Your task to perform on an android device: Open network settings Image 0: 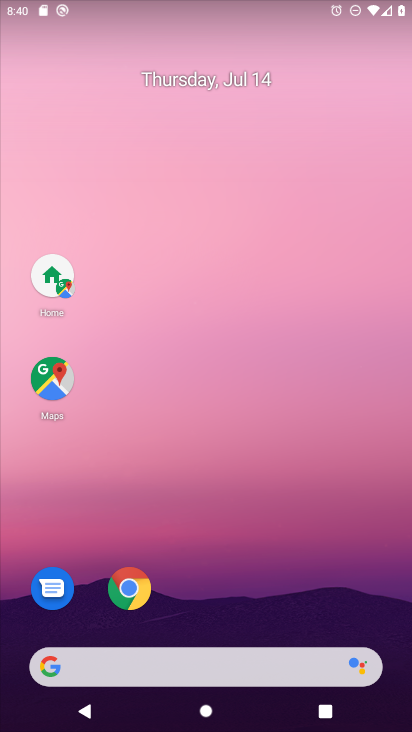
Step 0: drag from (27, 715) to (229, 235)
Your task to perform on an android device: Open network settings Image 1: 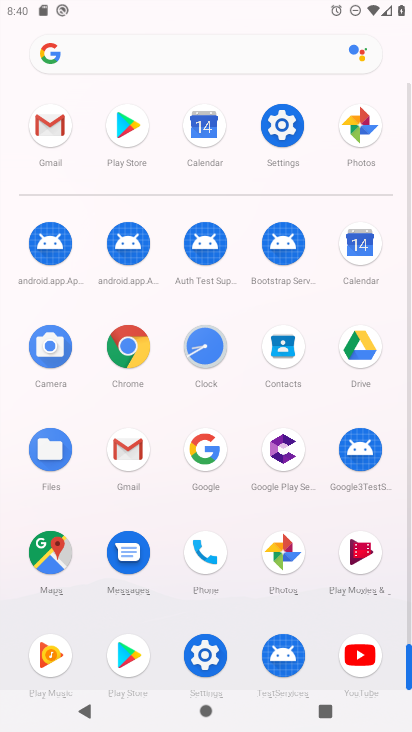
Step 1: click (197, 660)
Your task to perform on an android device: Open network settings Image 2: 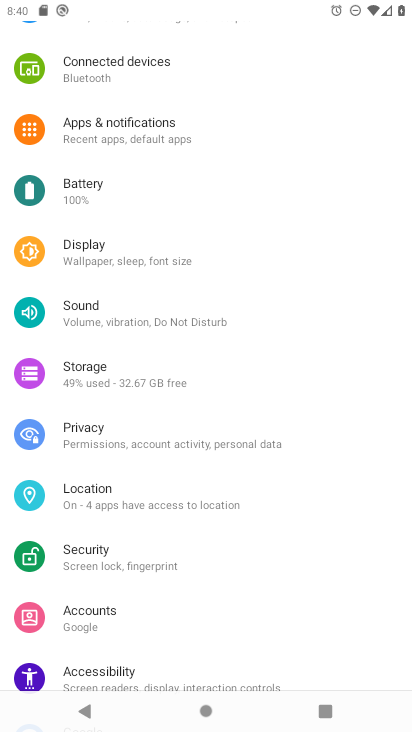
Step 2: drag from (312, 557) to (312, 191)
Your task to perform on an android device: Open network settings Image 3: 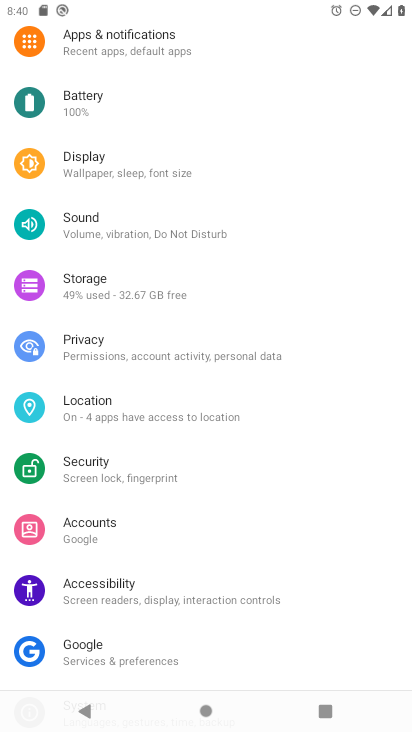
Step 3: drag from (305, 63) to (220, 712)
Your task to perform on an android device: Open network settings Image 4: 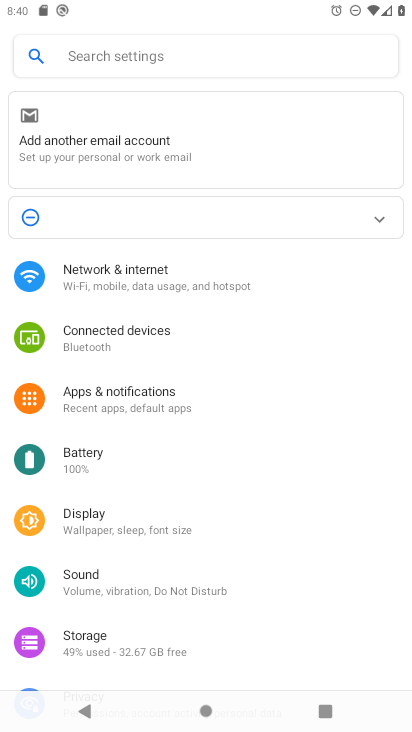
Step 4: click (113, 272)
Your task to perform on an android device: Open network settings Image 5: 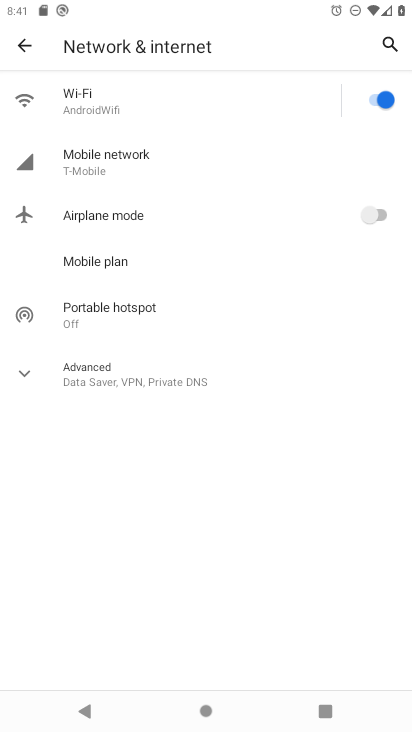
Step 5: task complete